Your task to perform on an android device: Show me recent news Image 0: 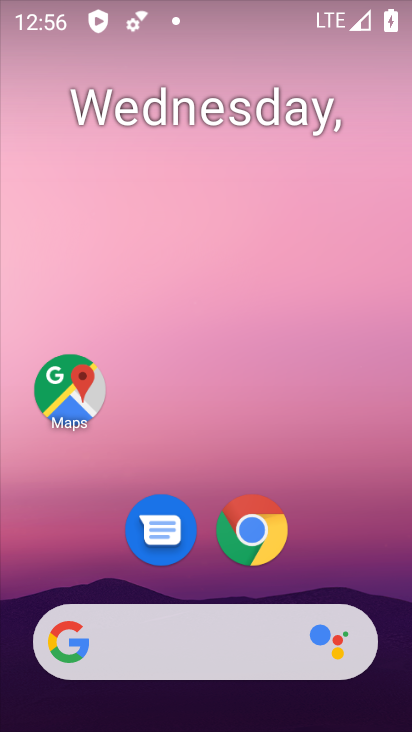
Step 0: drag from (342, 581) to (324, 153)
Your task to perform on an android device: Show me recent news Image 1: 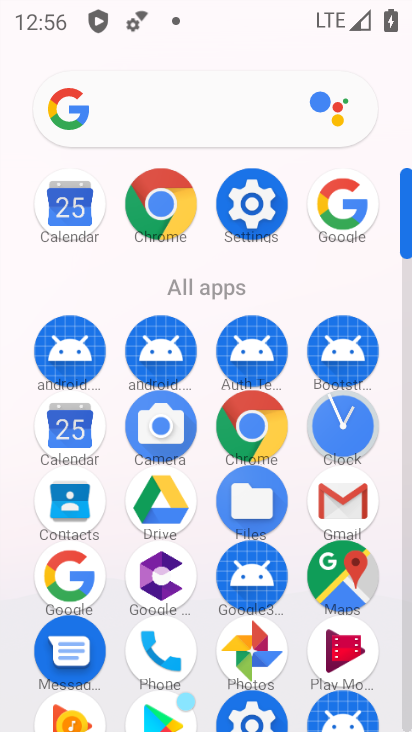
Step 1: click (264, 441)
Your task to perform on an android device: Show me recent news Image 2: 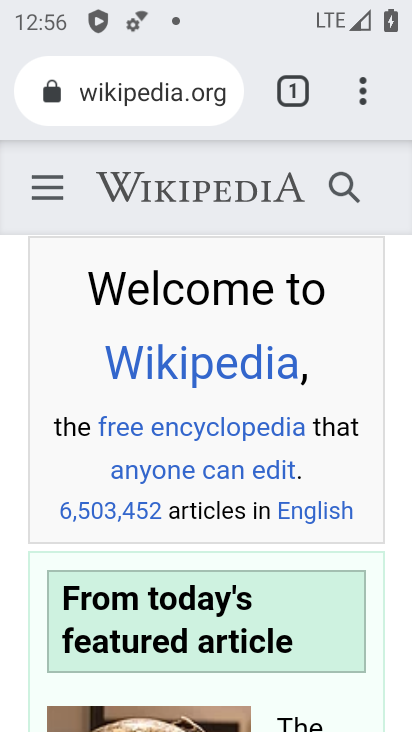
Step 2: click (140, 95)
Your task to perform on an android device: Show me recent news Image 3: 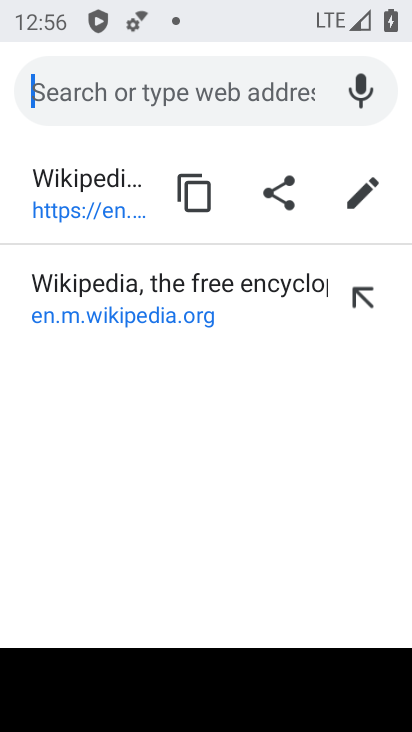
Step 3: type "show me recent news"
Your task to perform on an android device: Show me recent news Image 4: 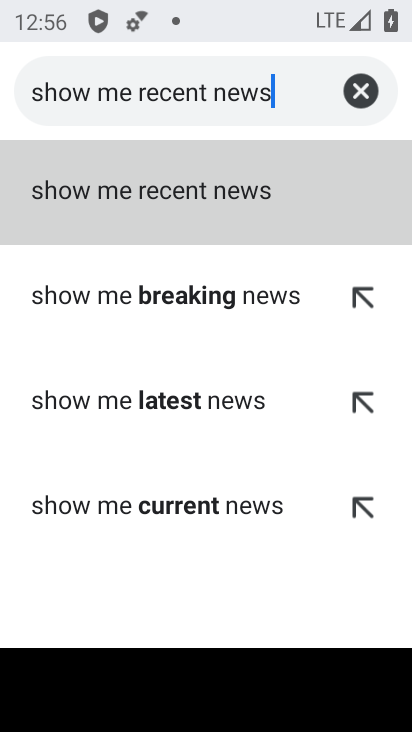
Step 4: click (97, 212)
Your task to perform on an android device: Show me recent news Image 5: 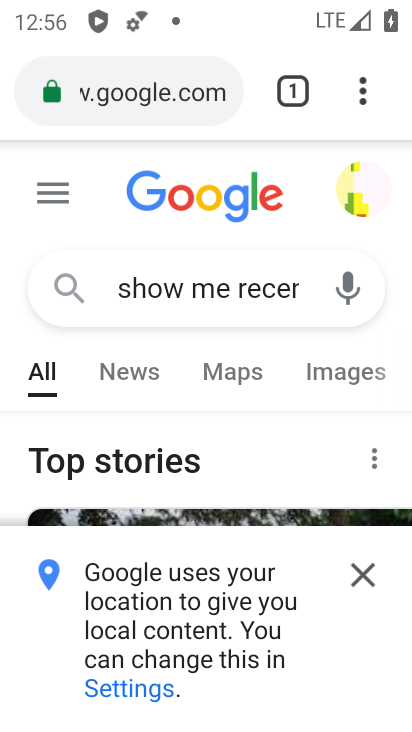
Step 5: task complete